Your task to perform on an android device: change the clock display to digital Image 0: 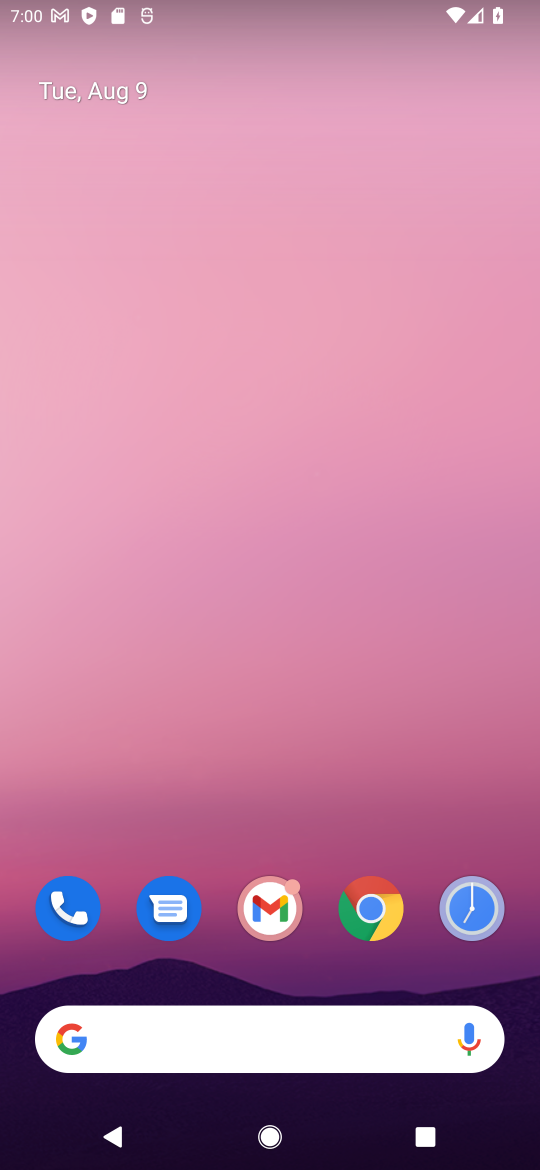
Step 0: drag from (259, 985) to (257, 291)
Your task to perform on an android device: change the clock display to digital Image 1: 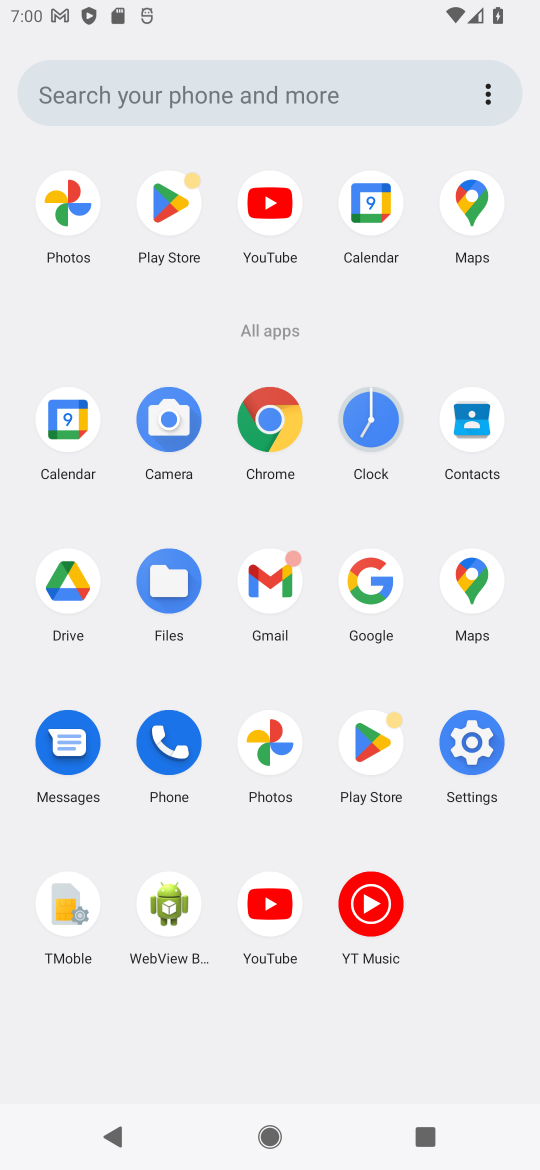
Step 1: click (361, 425)
Your task to perform on an android device: change the clock display to digital Image 2: 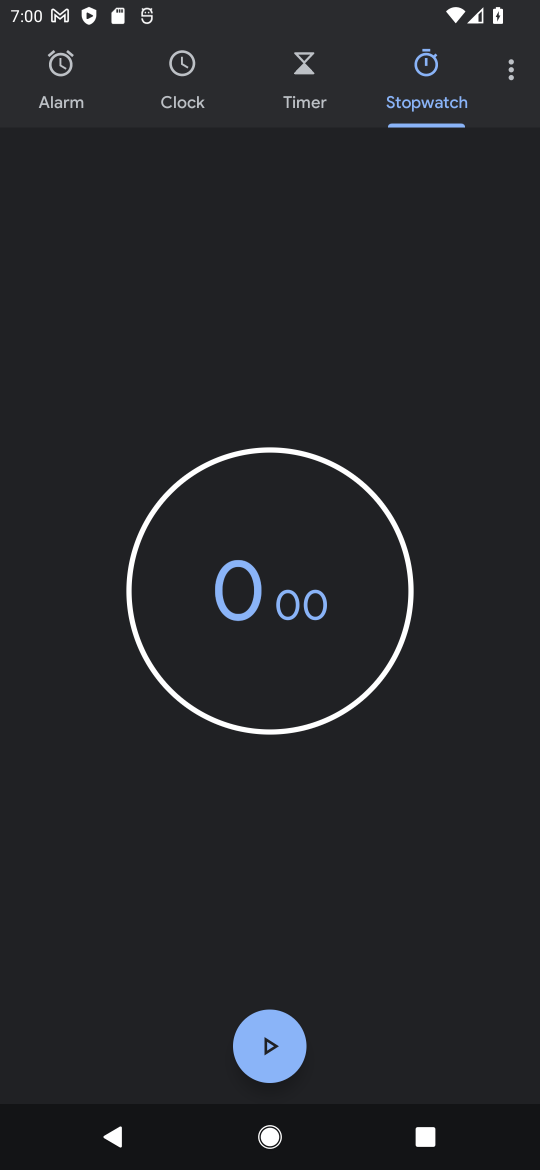
Step 2: click (508, 67)
Your task to perform on an android device: change the clock display to digital Image 3: 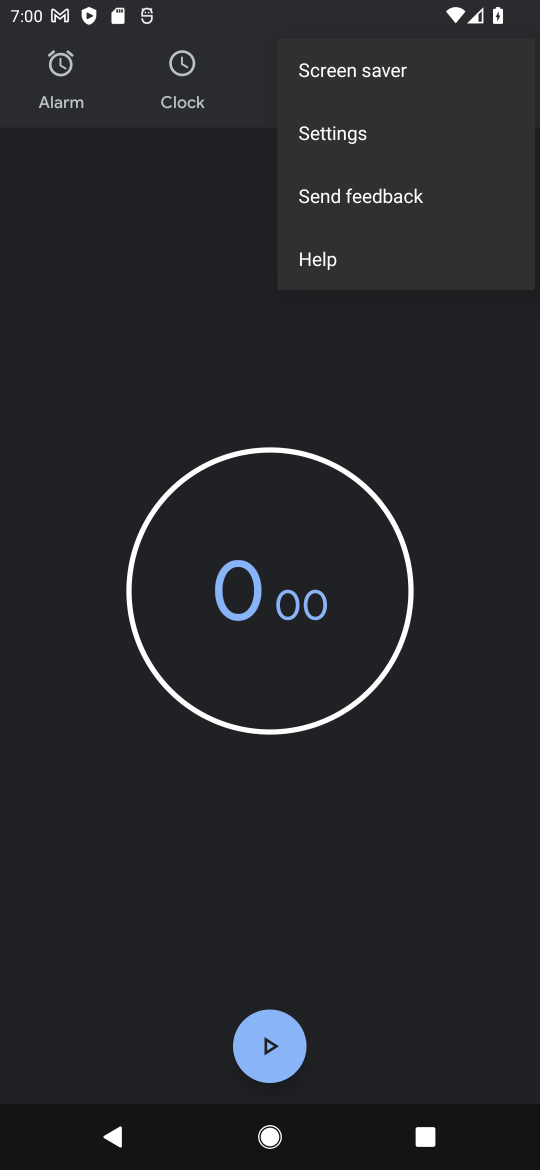
Step 3: click (335, 126)
Your task to perform on an android device: change the clock display to digital Image 4: 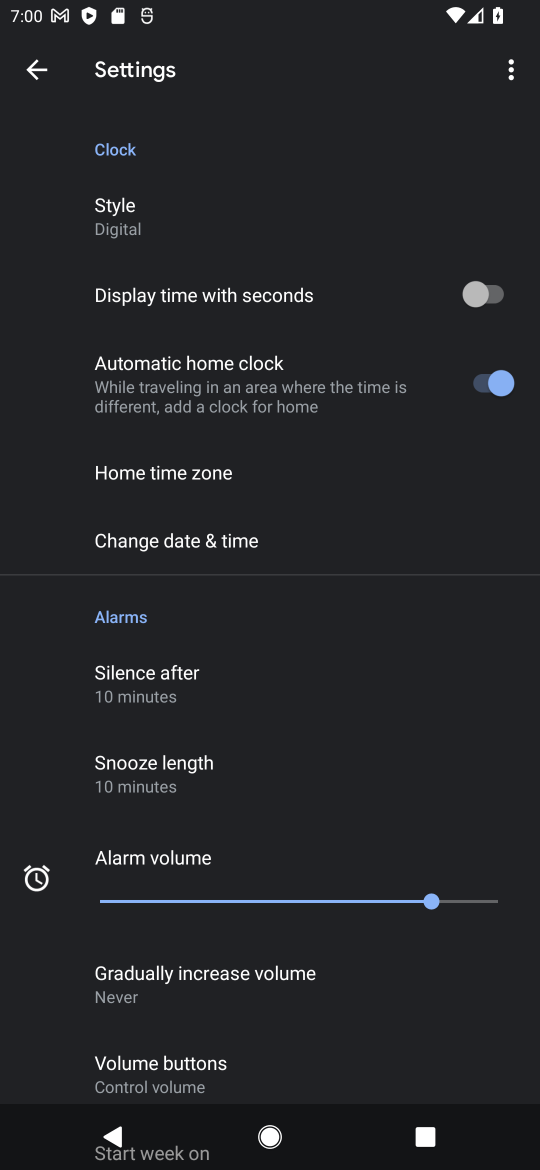
Step 4: task complete